Your task to perform on an android device: turn off sleep mode Image 0: 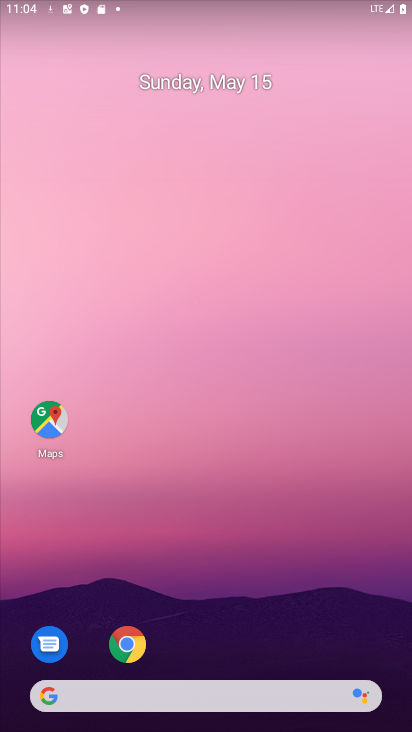
Step 0: drag from (241, 721) to (405, 158)
Your task to perform on an android device: turn off sleep mode Image 1: 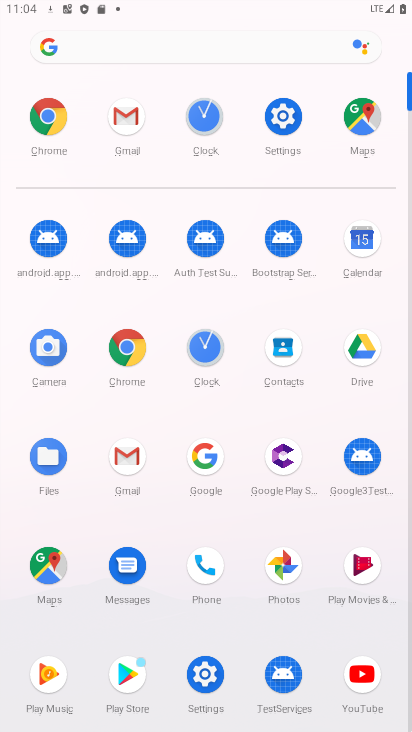
Step 1: click (284, 119)
Your task to perform on an android device: turn off sleep mode Image 2: 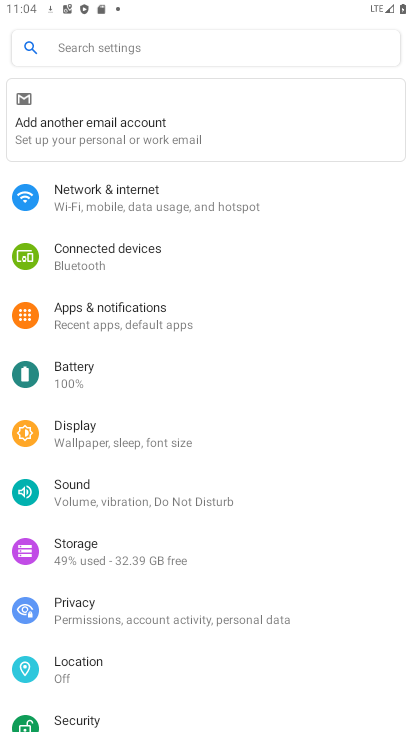
Step 2: click (143, 52)
Your task to perform on an android device: turn off sleep mode Image 3: 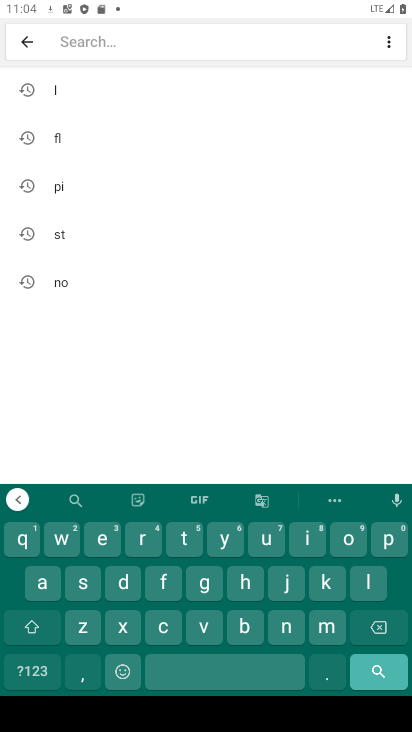
Step 3: click (86, 590)
Your task to perform on an android device: turn off sleep mode Image 4: 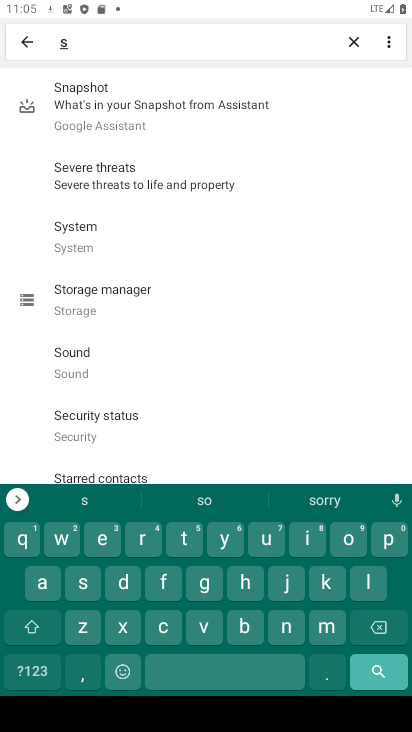
Step 4: click (365, 579)
Your task to perform on an android device: turn off sleep mode Image 5: 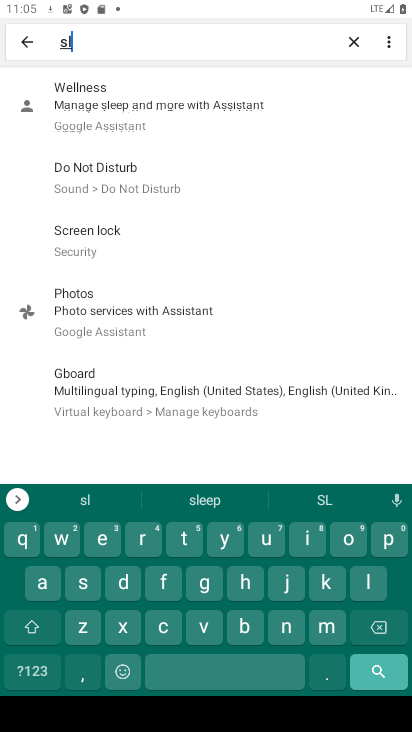
Step 5: click (149, 113)
Your task to perform on an android device: turn off sleep mode Image 6: 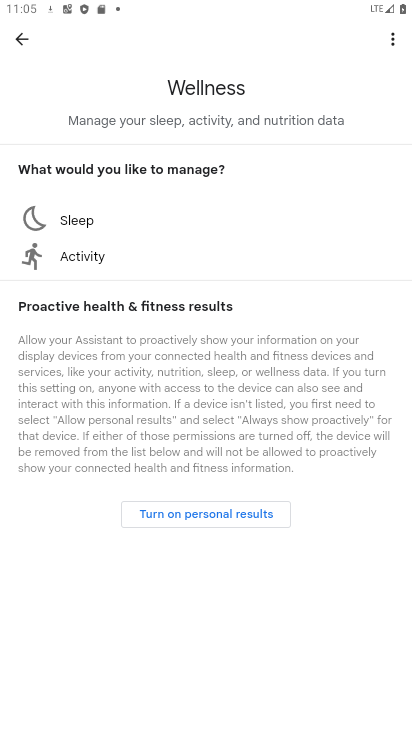
Step 6: click (131, 209)
Your task to perform on an android device: turn off sleep mode Image 7: 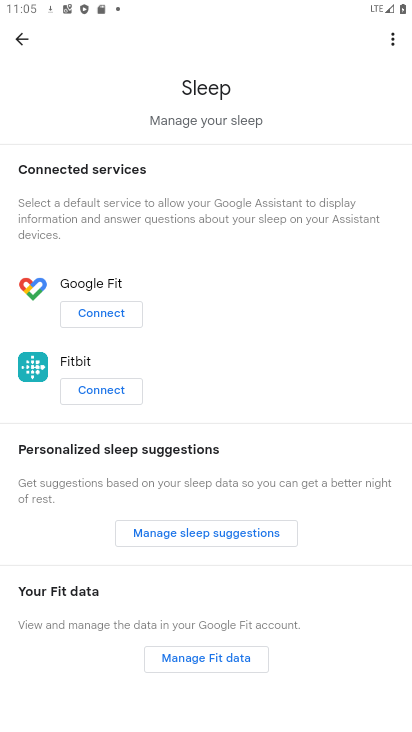
Step 7: task complete